Your task to perform on an android device: Go to ESPN.com Image 0: 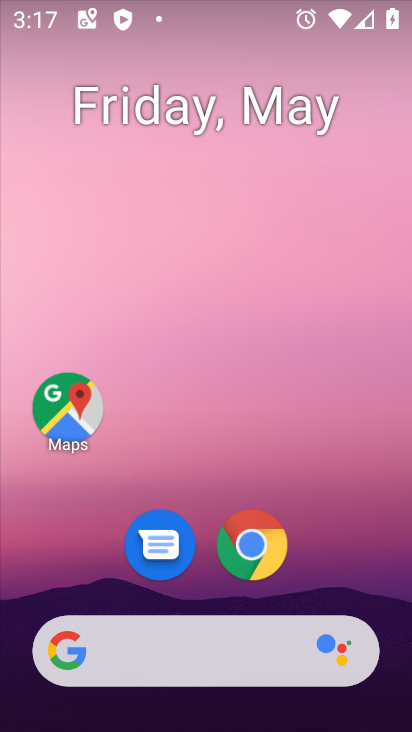
Step 0: click (252, 536)
Your task to perform on an android device: Go to ESPN.com Image 1: 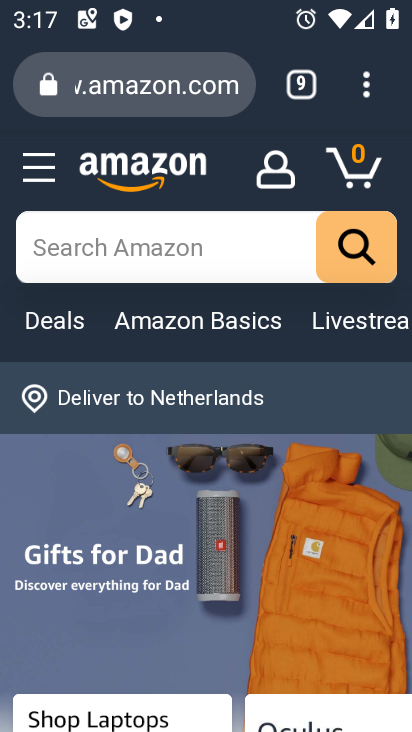
Step 1: click (304, 78)
Your task to perform on an android device: Go to ESPN.com Image 2: 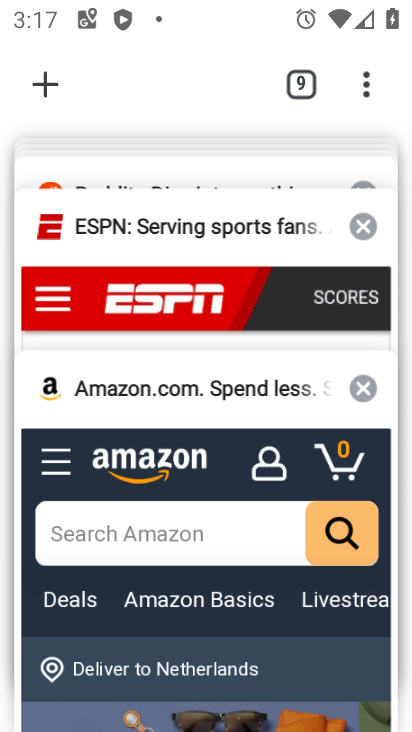
Step 2: click (205, 267)
Your task to perform on an android device: Go to ESPN.com Image 3: 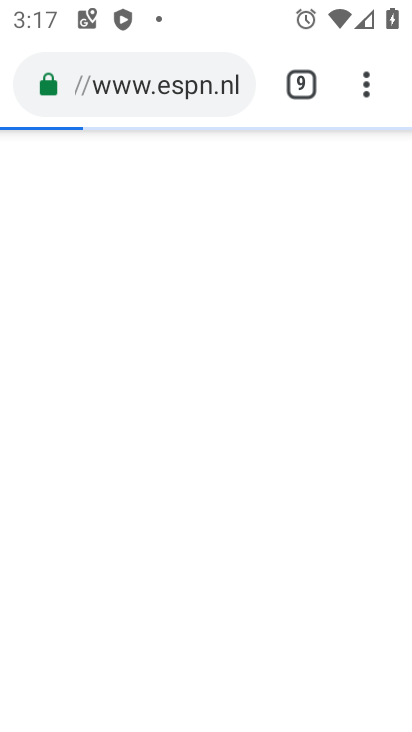
Step 3: task complete